Your task to perform on an android device: When is my next appointment? Image 0: 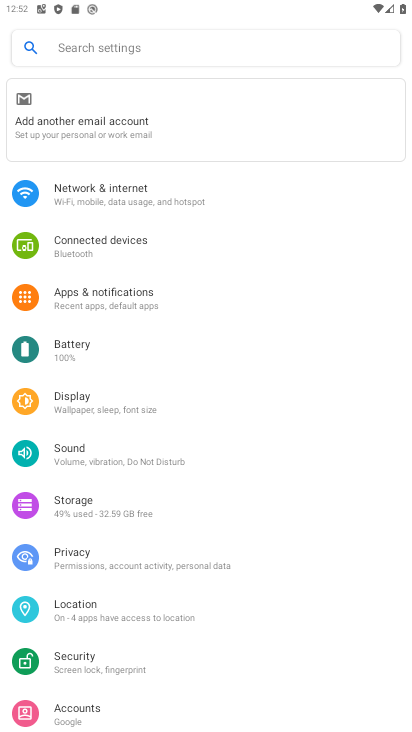
Step 0: press home button
Your task to perform on an android device: When is my next appointment? Image 1: 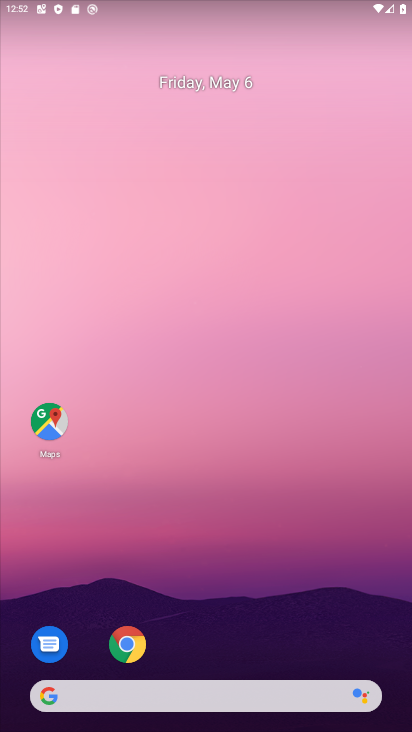
Step 1: drag from (222, 653) to (168, 162)
Your task to perform on an android device: When is my next appointment? Image 2: 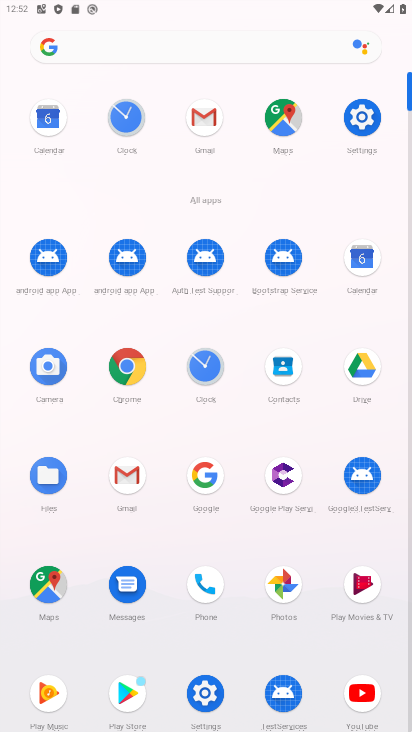
Step 2: click (354, 276)
Your task to perform on an android device: When is my next appointment? Image 3: 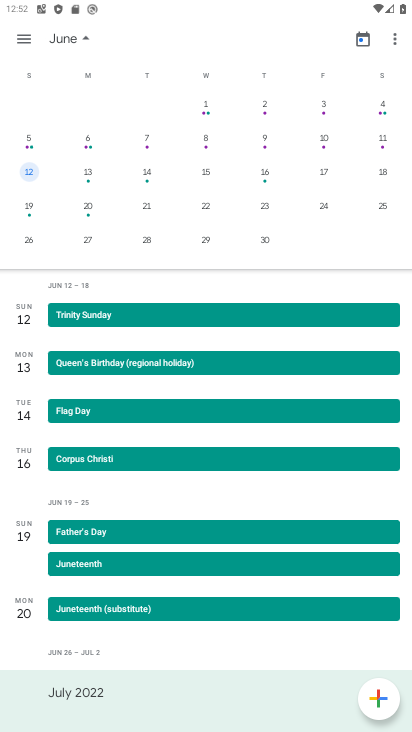
Step 3: task complete